Your task to perform on an android device: allow notifications from all sites in the chrome app Image 0: 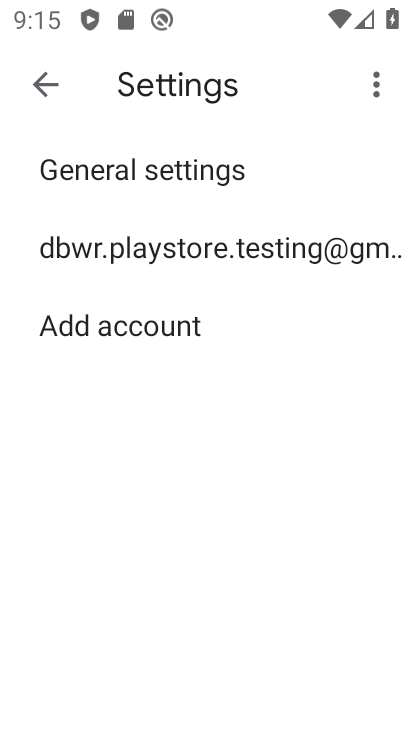
Step 0: press home button
Your task to perform on an android device: allow notifications from all sites in the chrome app Image 1: 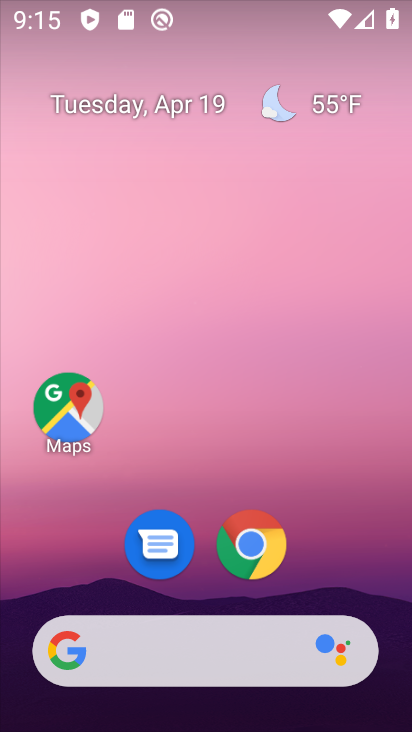
Step 1: drag from (357, 553) to (373, 70)
Your task to perform on an android device: allow notifications from all sites in the chrome app Image 2: 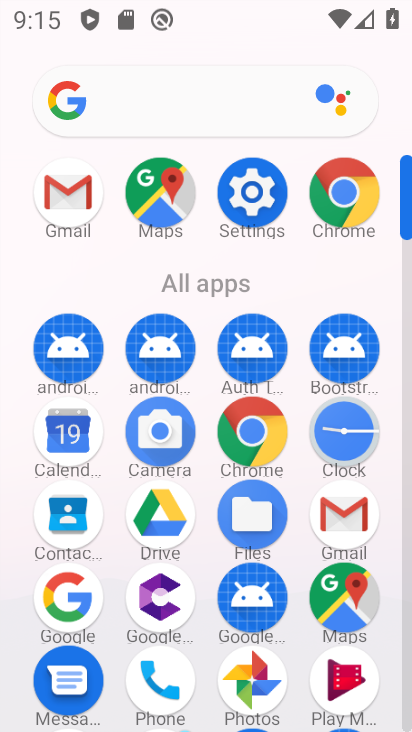
Step 2: click (354, 204)
Your task to perform on an android device: allow notifications from all sites in the chrome app Image 3: 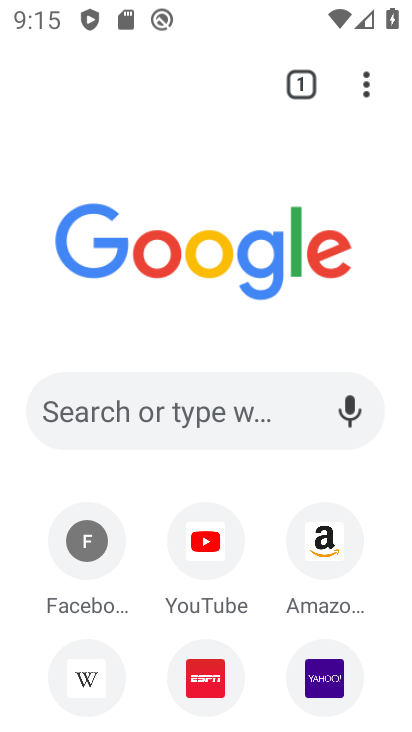
Step 3: click (365, 91)
Your task to perform on an android device: allow notifications from all sites in the chrome app Image 4: 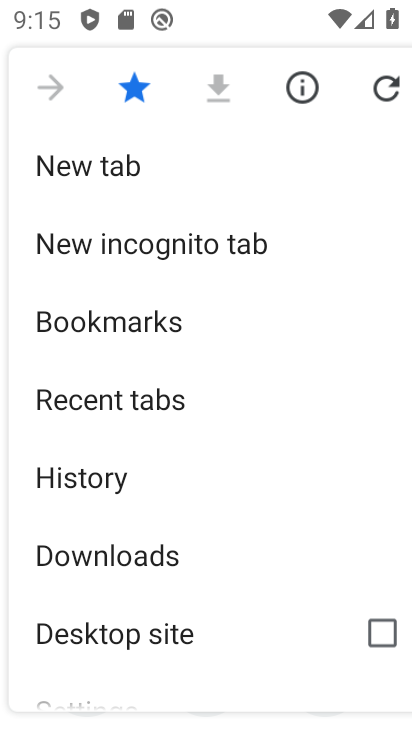
Step 4: drag from (299, 558) to (319, 312)
Your task to perform on an android device: allow notifications from all sites in the chrome app Image 5: 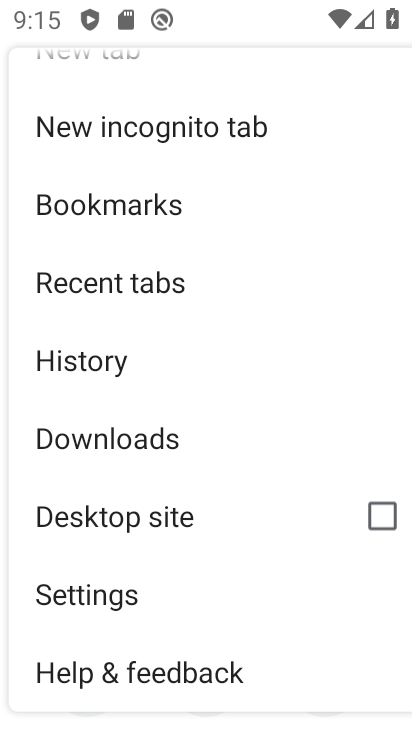
Step 5: click (100, 597)
Your task to perform on an android device: allow notifications from all sites in the chrome app Image 6: 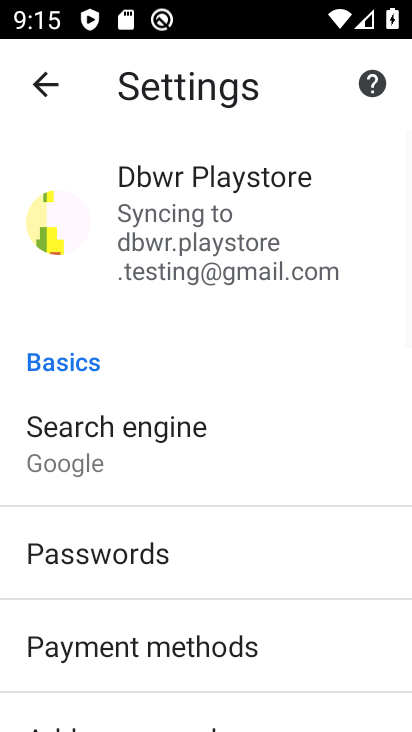
Step 6: drag from (318, 618) to (348, 407)
Your task to perform on an android device: allow notifications from all sites in the chrome app Image 7: 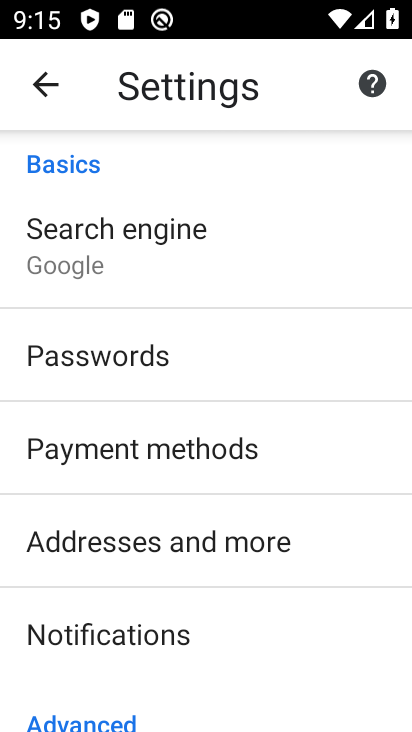
Step 7: drag from (340, 613) to (346, 342)
Your task to perform on an android device: allow notifications from all sites in the chrome app Image 8: 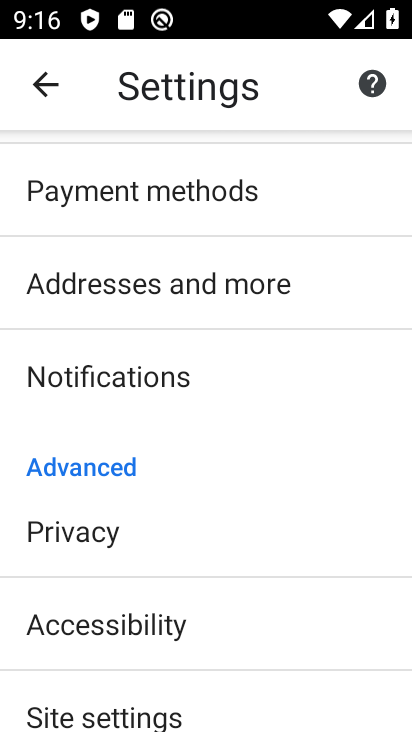
Step 8: drag from (315, 618) to (336, 357)
Your task to perform on an android device: allow notifications from all sites in the chrome app Image 9: 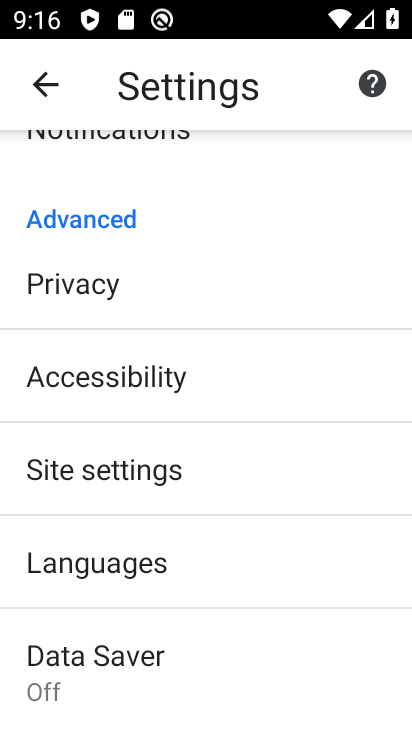
Step 9: drag from (317, 641) to (313, 408)
Your task to perform on an android device: allow notifications from all sites in the chrome app Image 10: 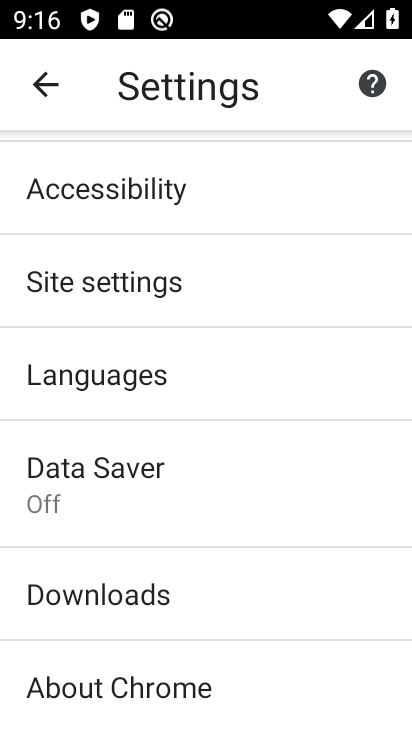
Step 10: click (166, 280)
Your task to perform on an android device: allow notifications from all sites in the chrome app Image 11: 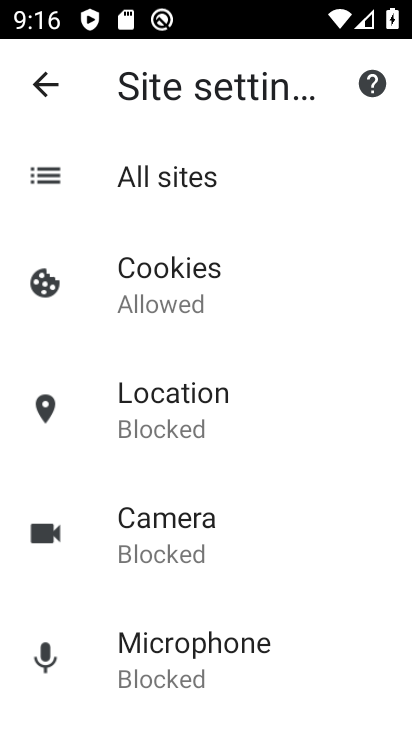
Step 11: drag from (343, 591) to (347, 374)
Your task to perform on an android device: allow notifications from all sites in the chrome app Image 12: 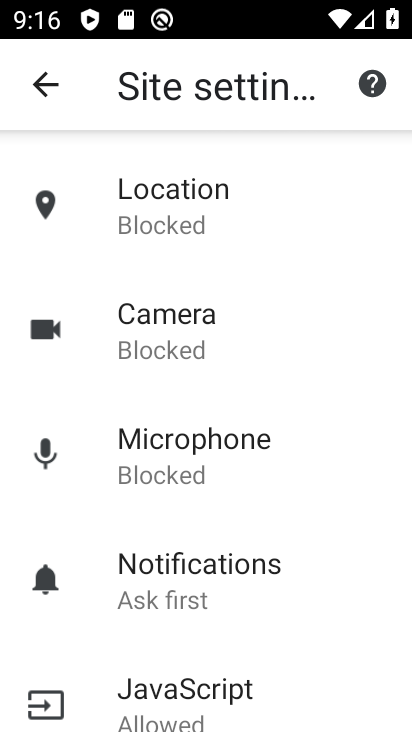
Step 12: drag from (358, 613) to (358, 332)
Your task to perform on an android device: allow notifications from all sites in the chrome app Image 13: 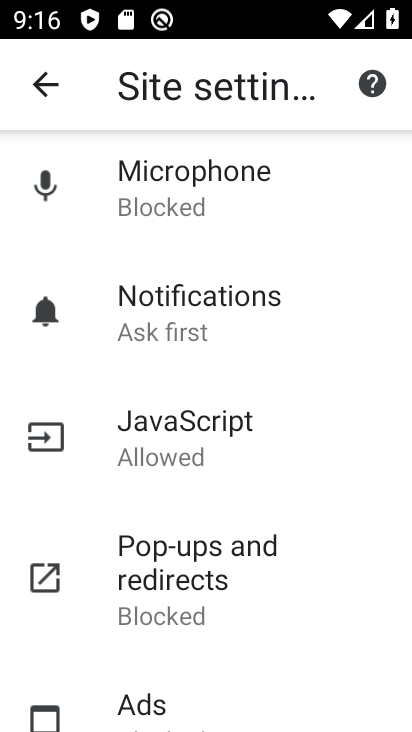
Step 13: drag from (339, 578) to (349, 372)
Your task to perform on an android device: allow notifications from all sites in the chrome app Image 14: 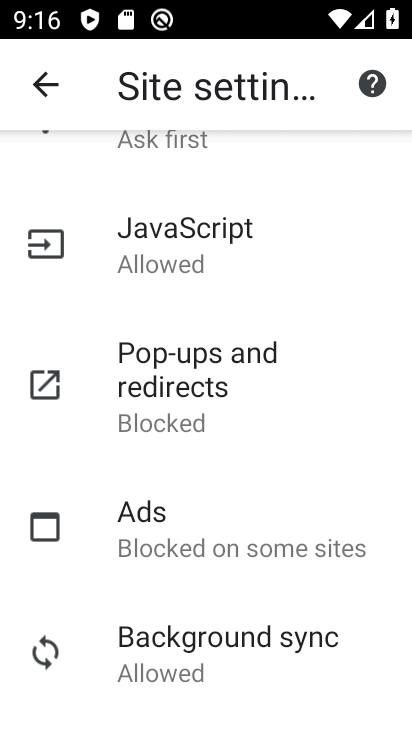
Step 14: drag from (345, 604) to (367, 318)
Your task to perform on an android device: allow notifications from all sites in the chrome app Image 15: 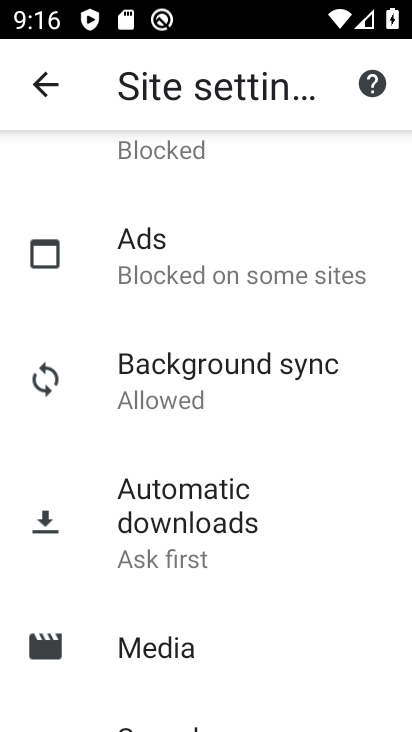
Step 15: drag from (370, 218) to (358, 482)
Your task to perform on an android device: allow notifications from all sites in the chrome app Image 16: 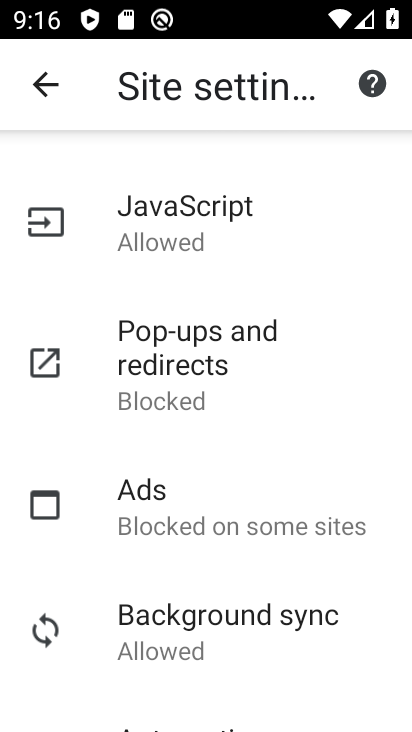
Step 16: drag from (359, 279) to (361, 509)
Your task to perform on an android device: allow notifications from all sites in the chrome app Image 17: 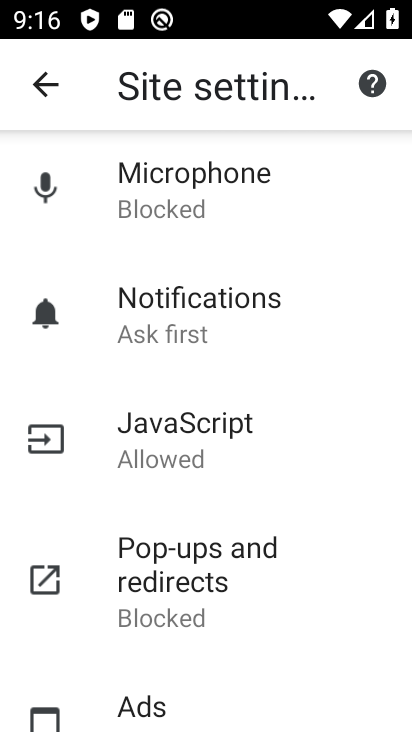
Step 17: click (194, 319)
Your task to perform on an android device: allow notifications from all sites in the chrome app Image 18: 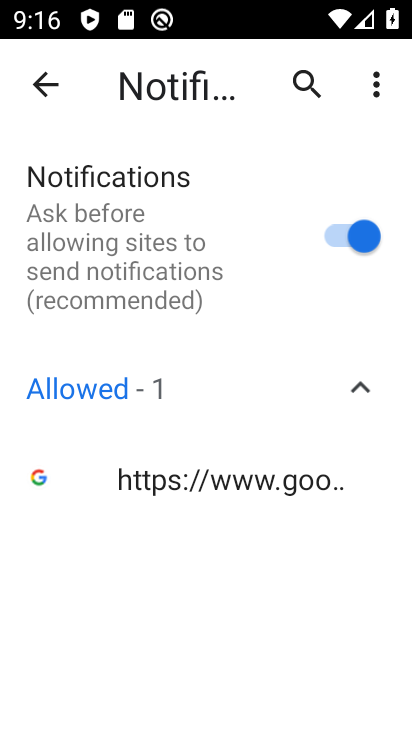
Step 18: task complete